Your task to perform on an android device: change notification settings in the gmail app Image 0: 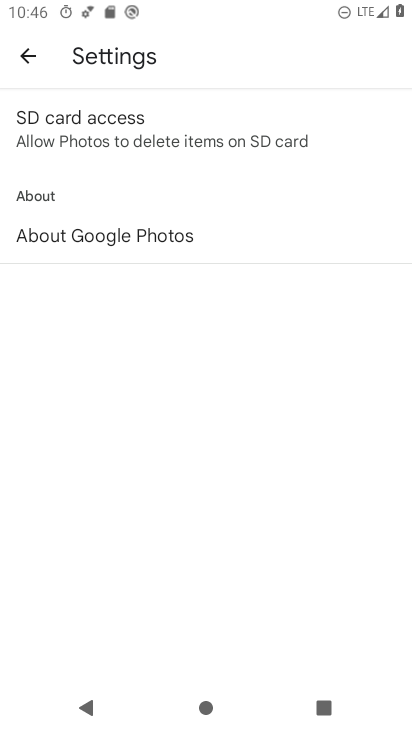
Step 0: press home button
Your task to perform on an android device: change notification settings in the gmail app Image 1: 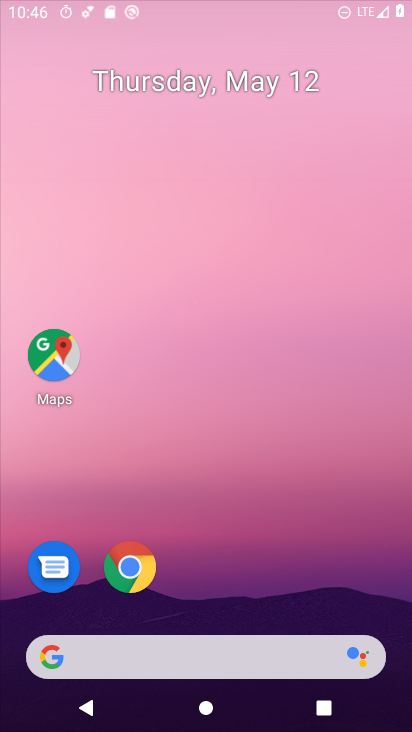
Step 1: drag from (264, 590) to (274, 33)
Your task to perform on an android device: change notification settings in the gmail app Image 2: 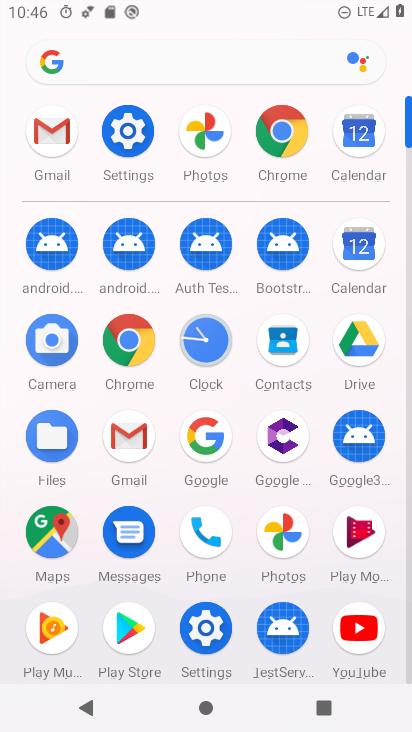
Step 2: click (134, 447)
Your task to perform on an android device: change notification settings in the gmail app Image 3: 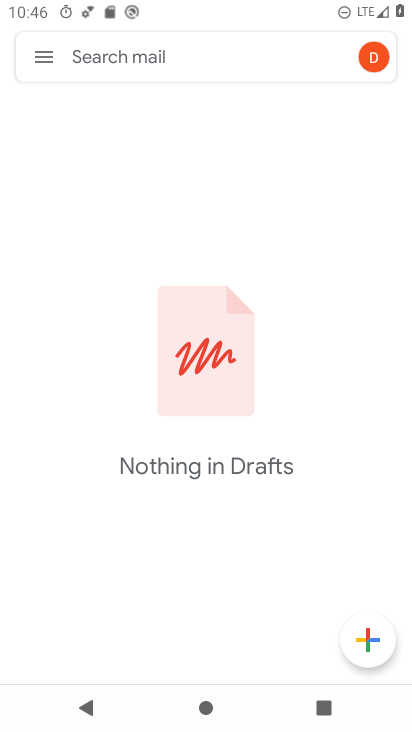
Step 3: press home button
Your task to perform on an android device: change notification settings in the gmail app Image 4: 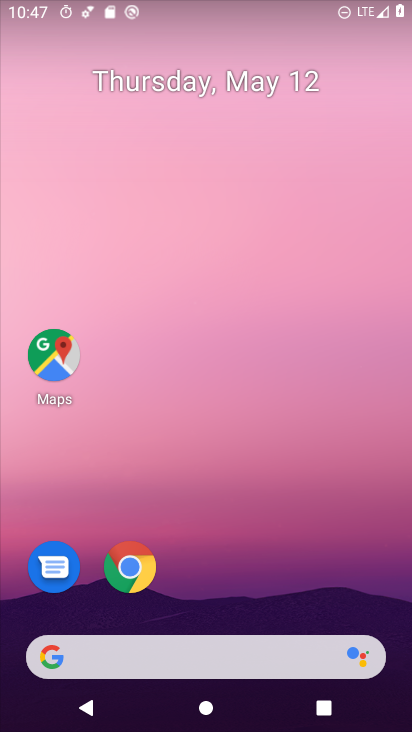
Step 4: drag from (224, 593) to (259, 0)
Your task to perform on an android device: change notification settings in the gmail app Image 5: 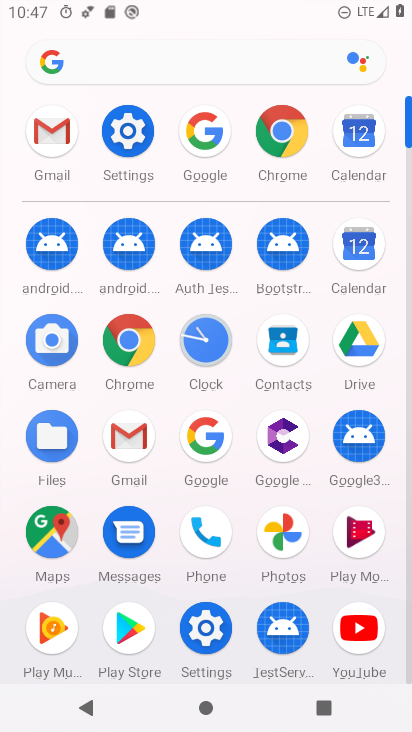
Step 5: click (141, 456)
Your task to perform on an android device: change notification settings in the gmail app Image 6: 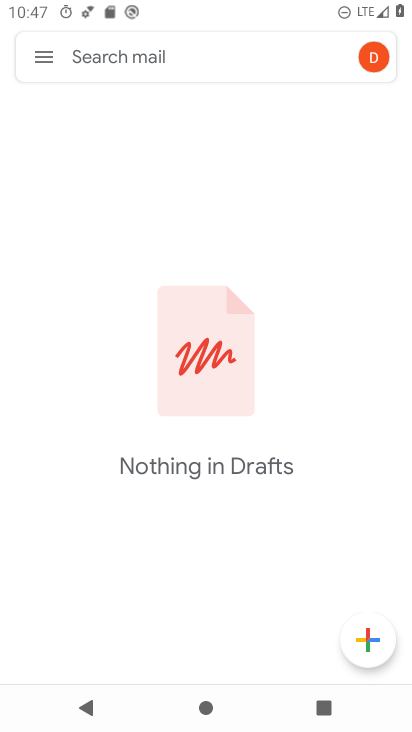
Step 6: click (57, 64)
Your task to perform on an android device: change notification settings in the gmail app Image 7: 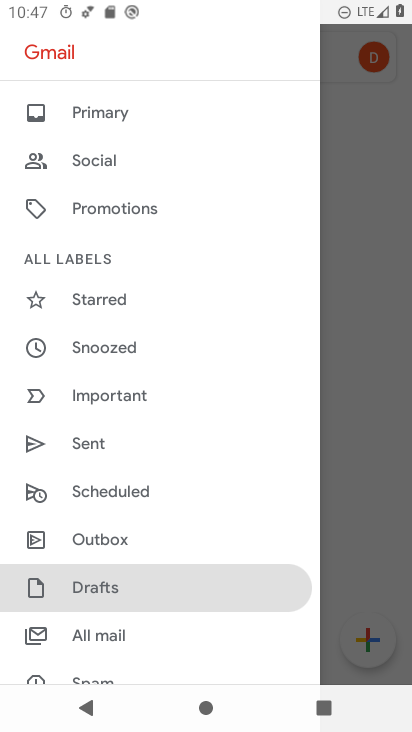
Step 7: drag from (137, 601) to (164, 214)
Your task to perform on an android device: change notification settings in the gmail app Image 8: 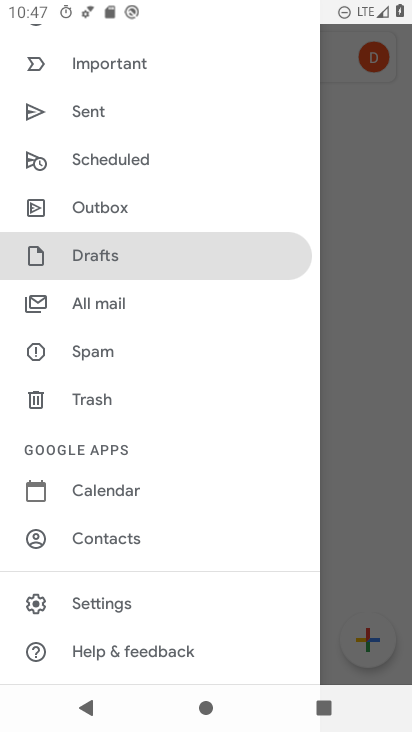
Step 8: click (87, 605)
Your task to perform on an android device: change notification settings in the gmail app Image 9: 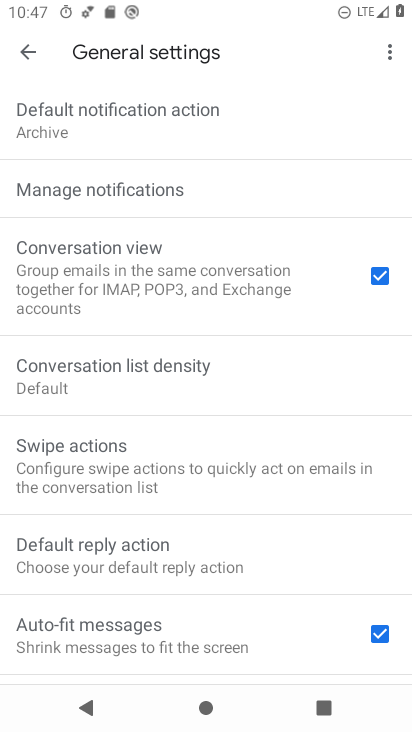
Step 9: click (185, 198)
Your task to perform on an android device: change notification settings in the gmail app Image 10: 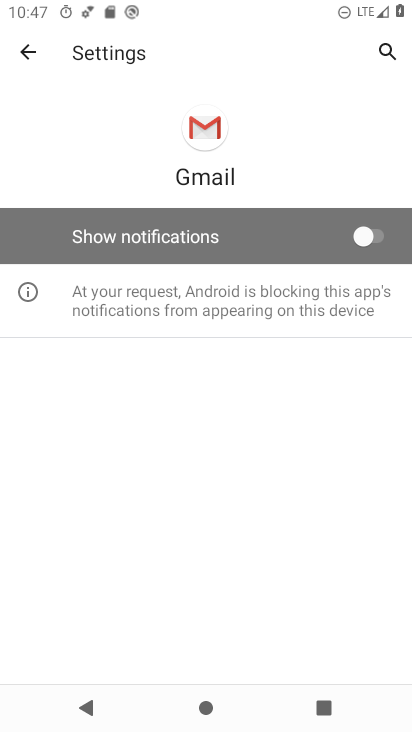
Step 10: click (195, 249)
Your task to perform on an android device: change notification settings in the gmail app Image 11: 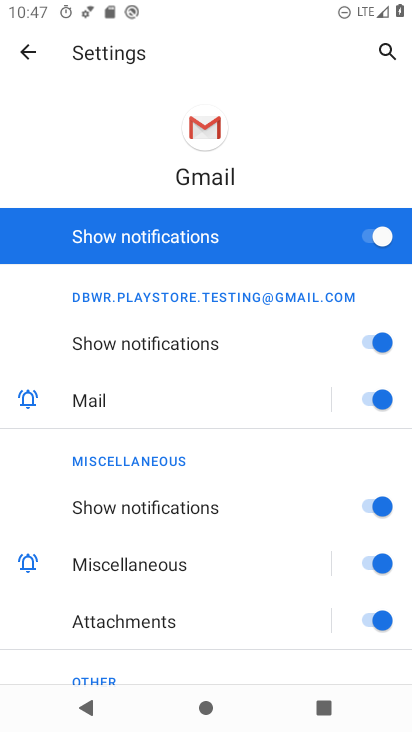
Step 11: task complete